Your task to perform on an android device: Play the last video I watched on Youtube Image 0: 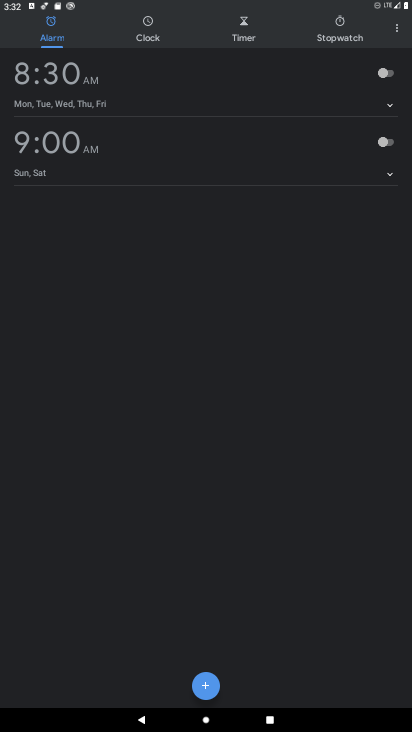
Step 0: press home button
Your task to perform on an android device: Play the last video I watched on Youtube Image 1: 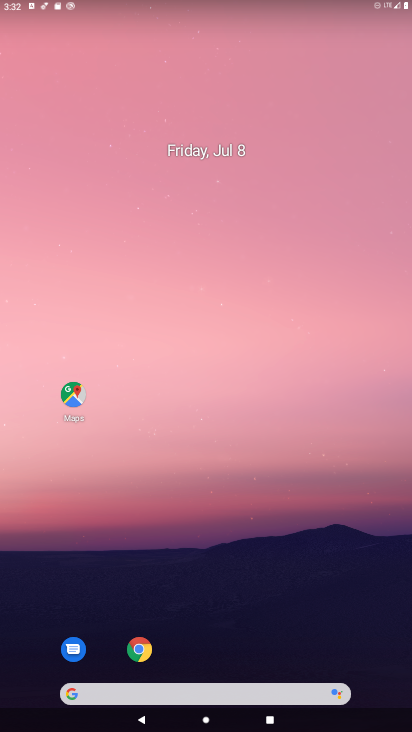
Step 1: drag from (391, 673) to (341, 137)
Your task to perform on an android device: Play the last video I watched on Youtube Image 2: 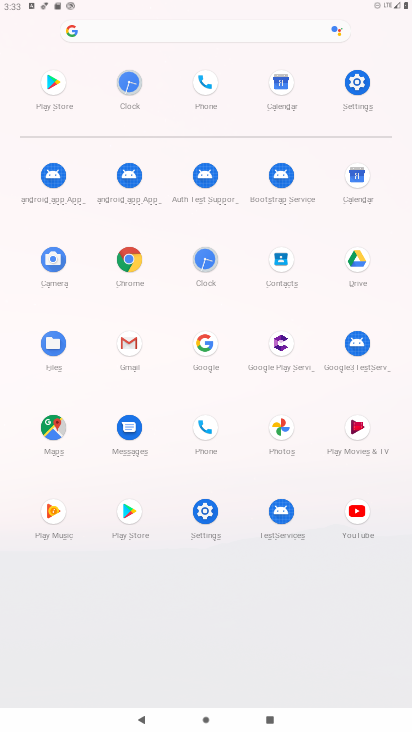
Step 2: click (357, 512)
Your task to perform on an android device: Play the last video I watched on Youtube Image 3: 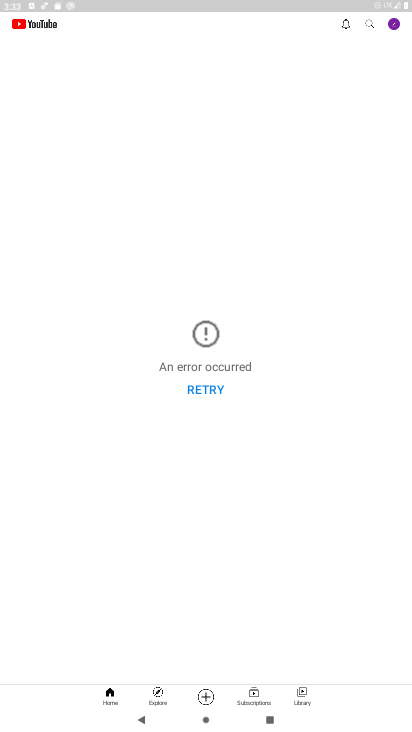
Step 3: click (301, 693)
Your task to perform on an android device: Play the last video I watched on Youtube Image 4: 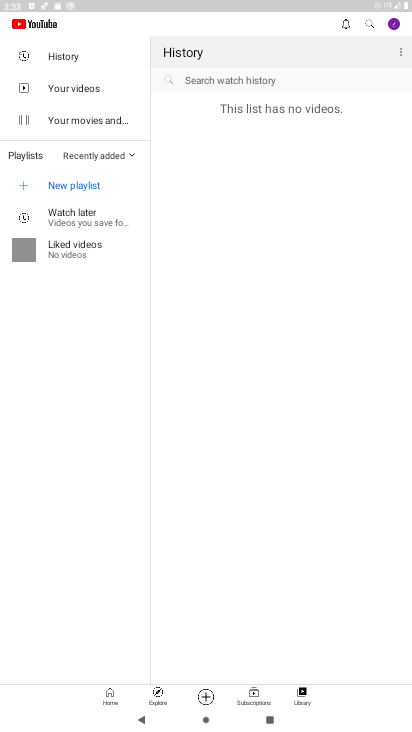
Step 4: click (56, 50)
Your task to perform on an android device: Play the last video I watched on Youtube Image 5: 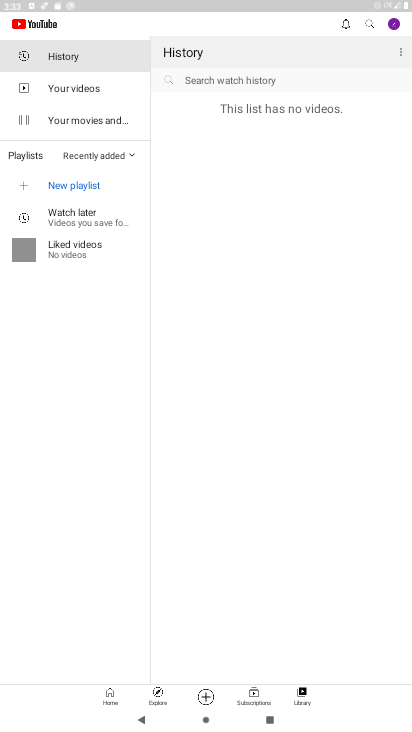
Step 5: click (73, 54)
Your task to perform on an android device: Play the last video I watched on Youtube Image 6: 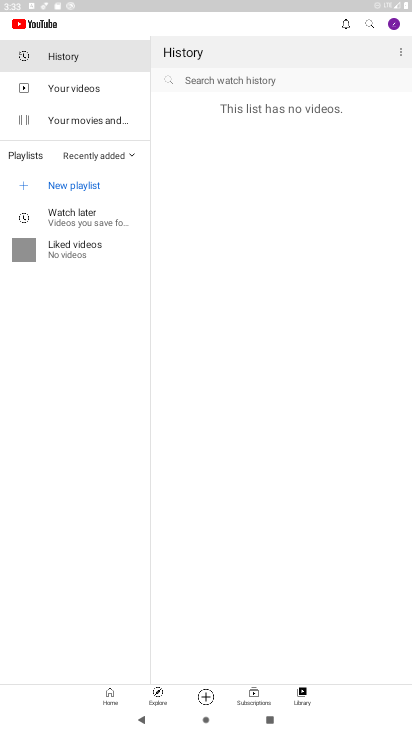
Step 6: task complete